Your task to perform on an android device: turn off airplane mode Image 0: 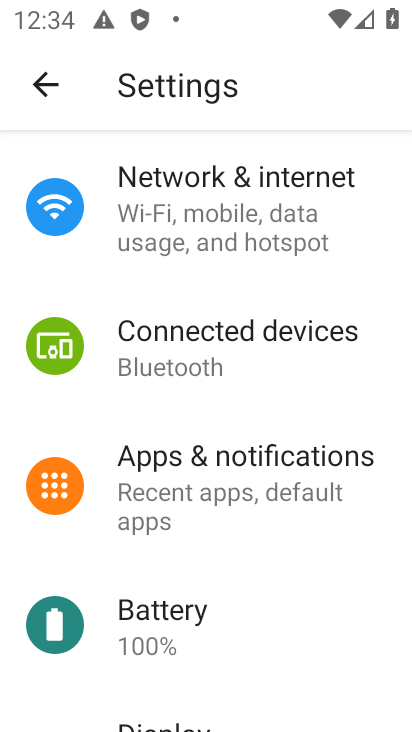
Step 0: click (216, 189)
Your task to perform on an android device: turn off airplane mode Image 1: 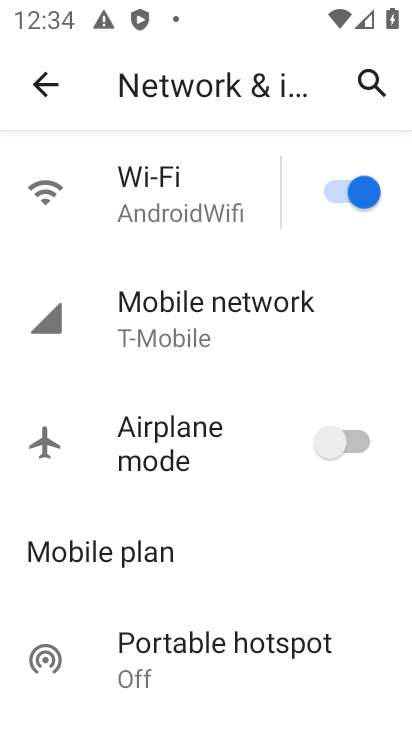
Step 1: task complete